Your task to perform on an android device: open the mobile data screen to see how much data has been used Image 0: 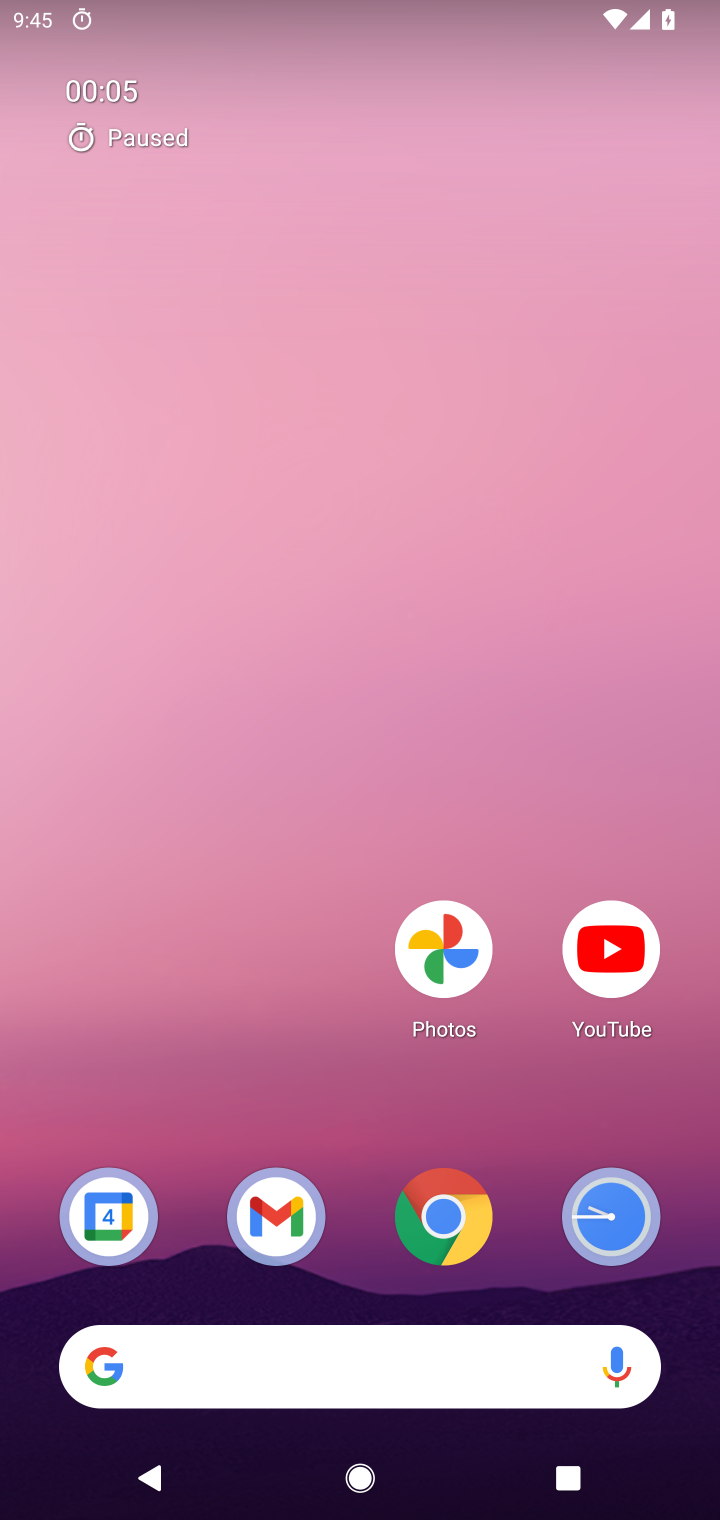
Step 0: drag from (351, 1110) to (295, 111)
Your task to perform on an android device: open the mobile data screen to see how much data has been used Image 1: 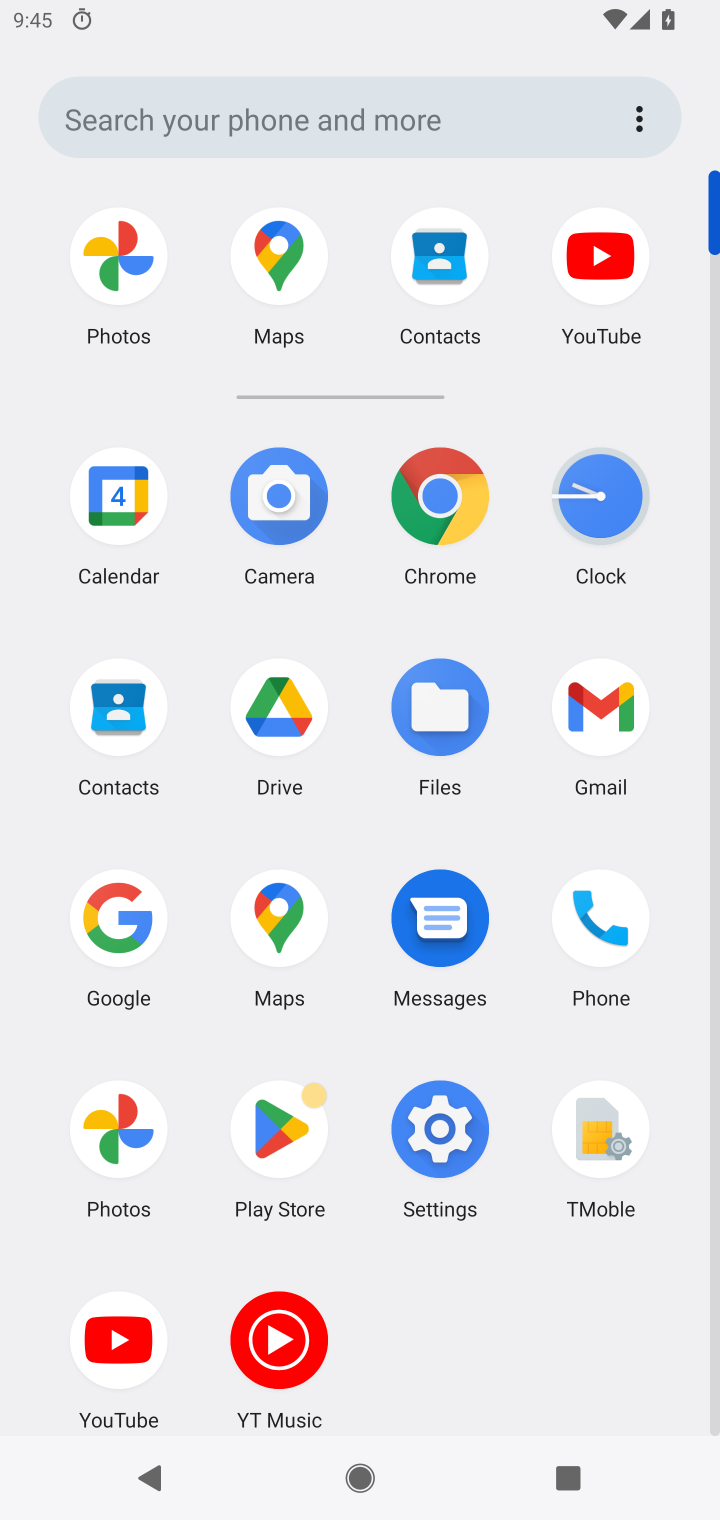
Step 1: click (440, 1129)
Your task to perform on an android device: open the mobile data screen to see how much data has been used Image 2: 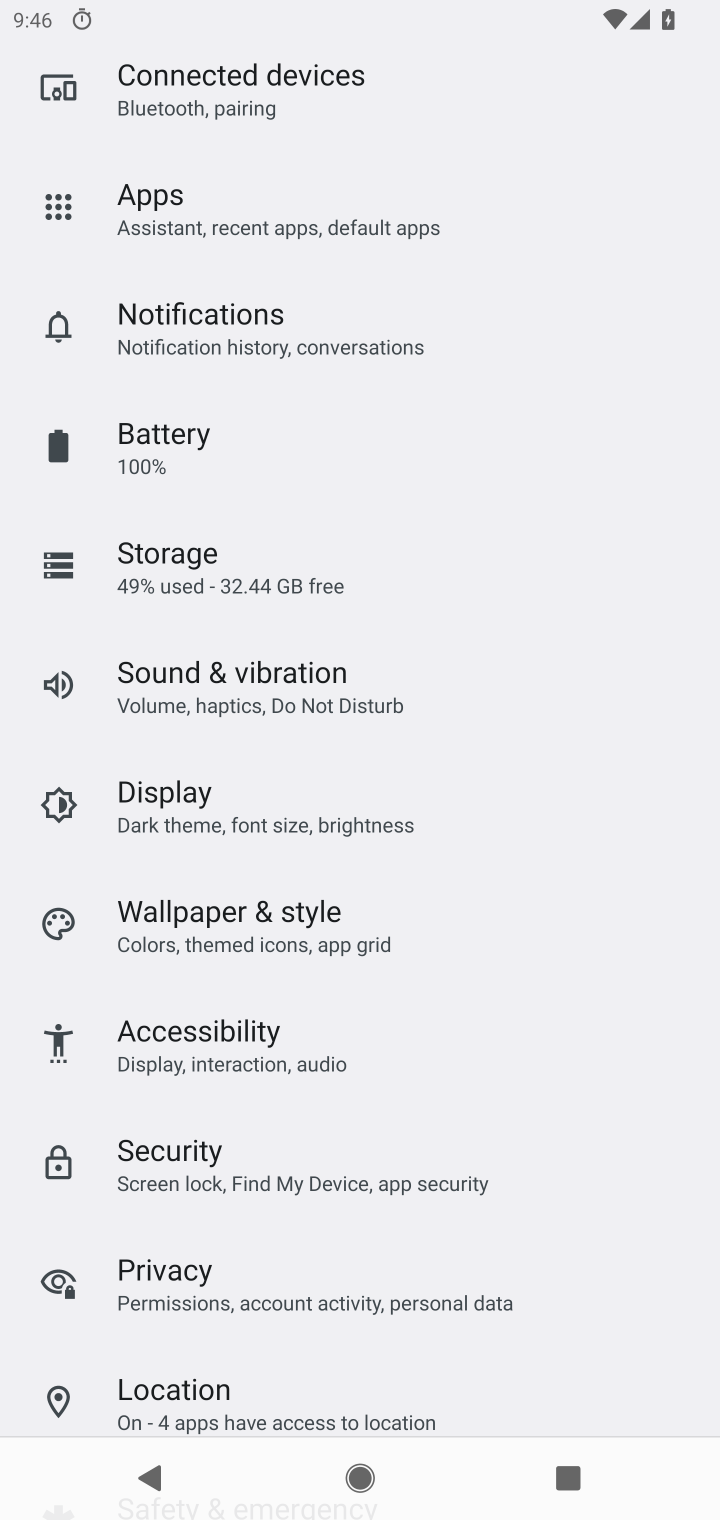
Step 2: drag from (233, 527) to (234, 941)
Your task to perform on an android device: open the mobile data screen to see how much data has been used Image 3: 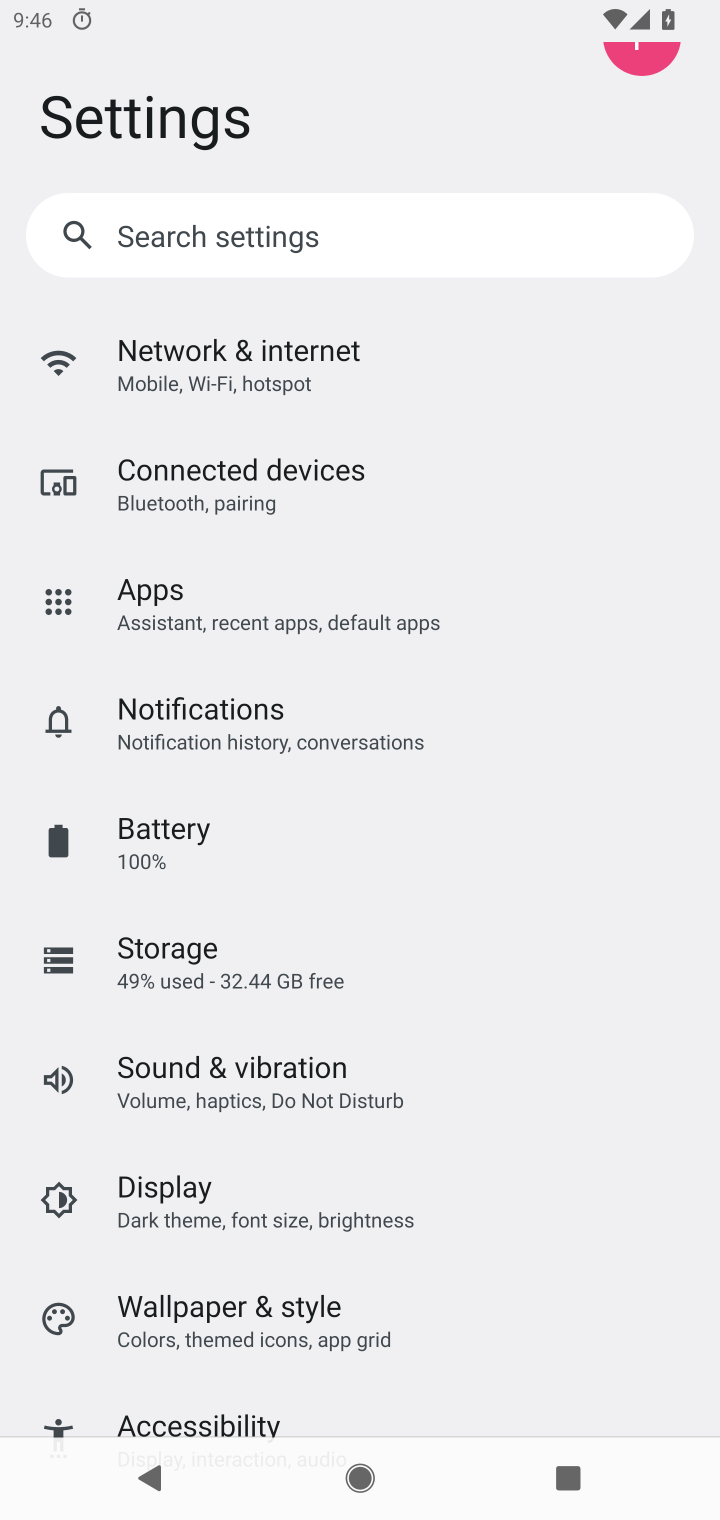
Step 3: click (193, 374)
Your task to perform on an android device: open the mobile data screen to see how much data has been used Image 4: 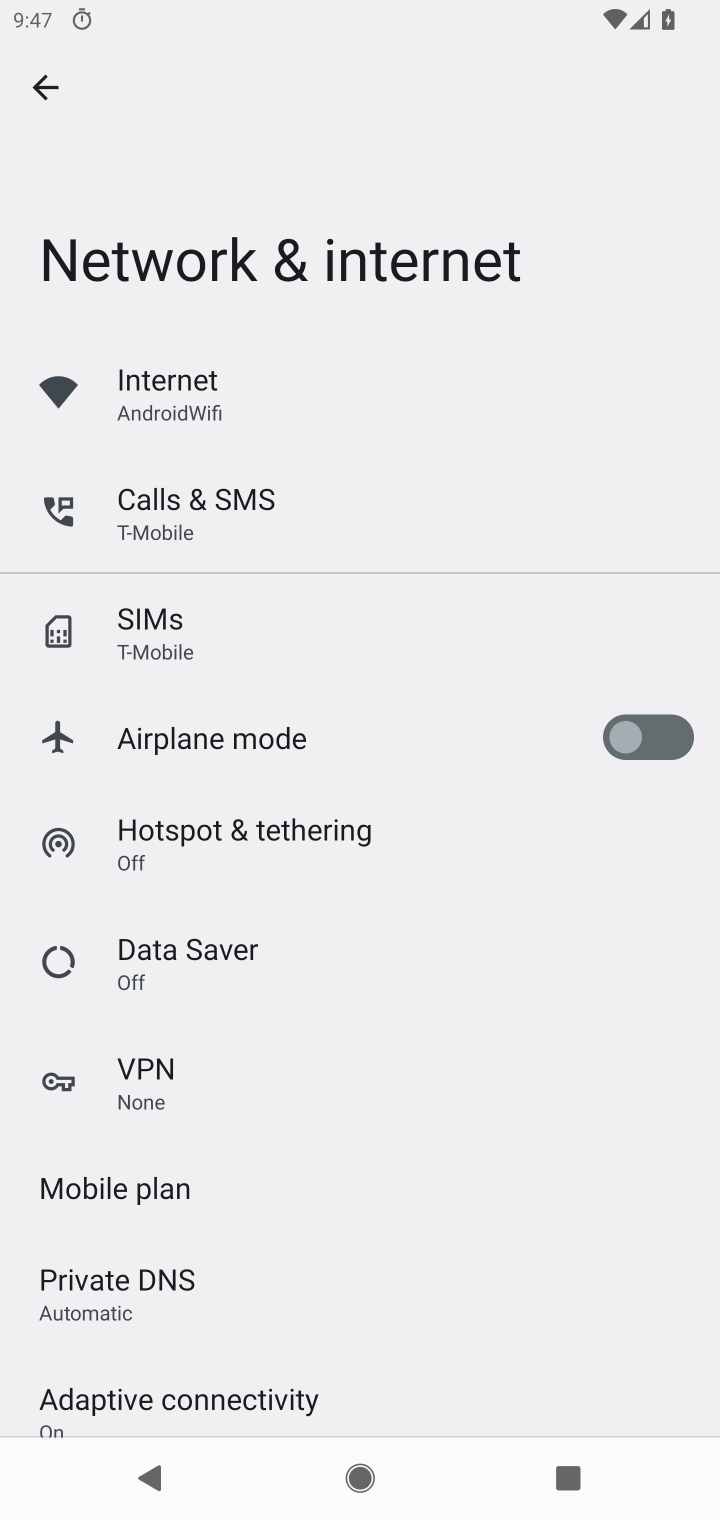
Step 4: drag from (246, 1088) to (235, 861)
Your task to perform on an android device: open the mobile data screen to see how much data has been used Image 5: 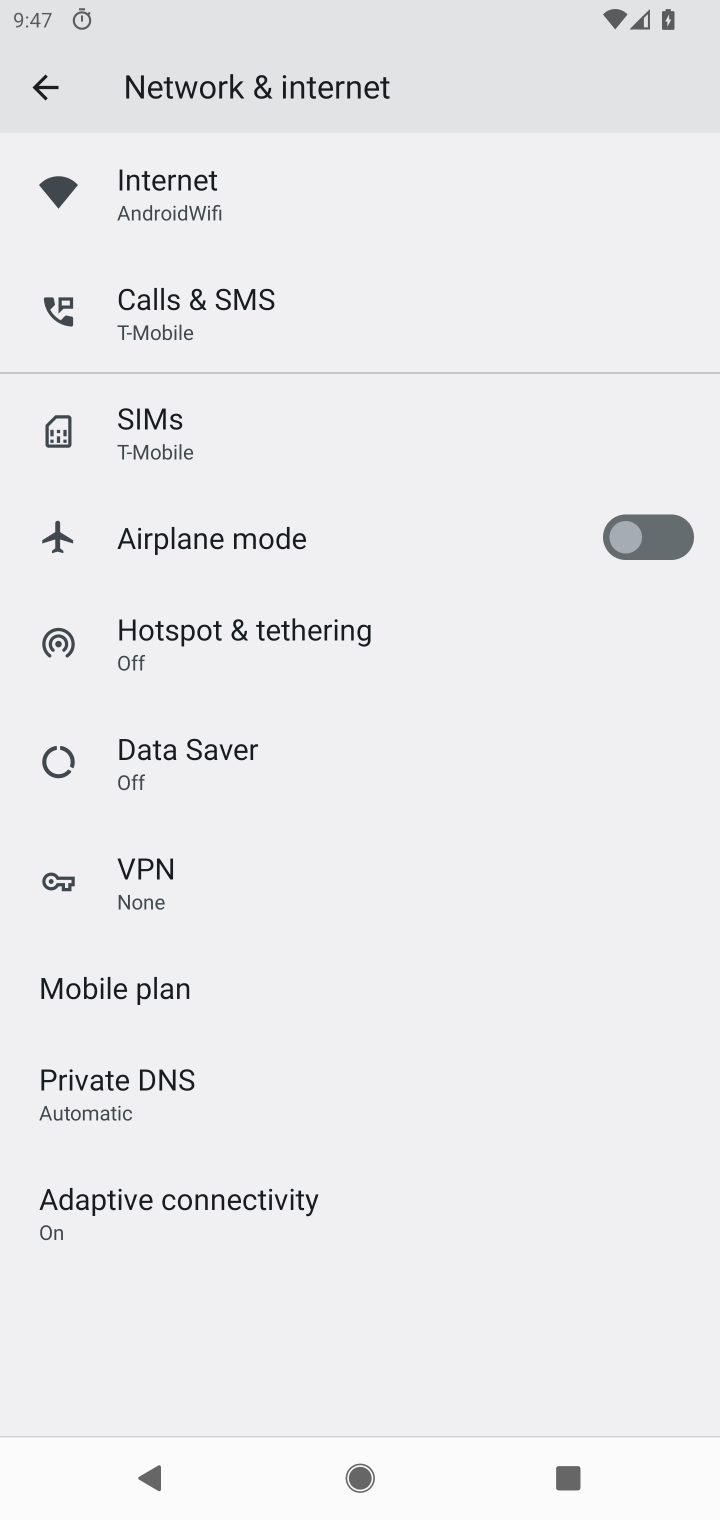
Step 5: click (167, 218)
Your task to perform on an android device: open the mobile data screen to see how much data has been used Image 6: 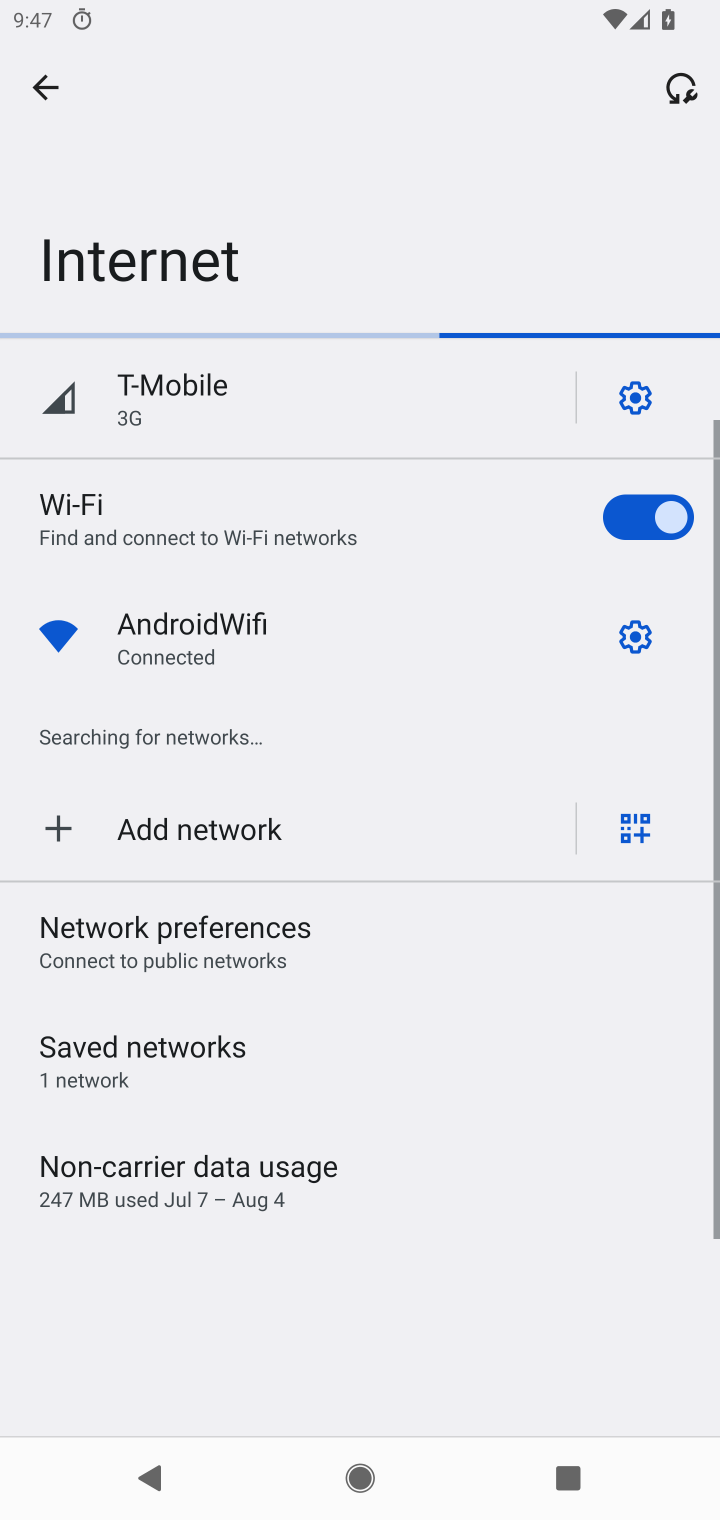
Step 6: click (200, 1177)
Your task to perform on an android device: open the mobile data screen to see how much data has been used Image 7: 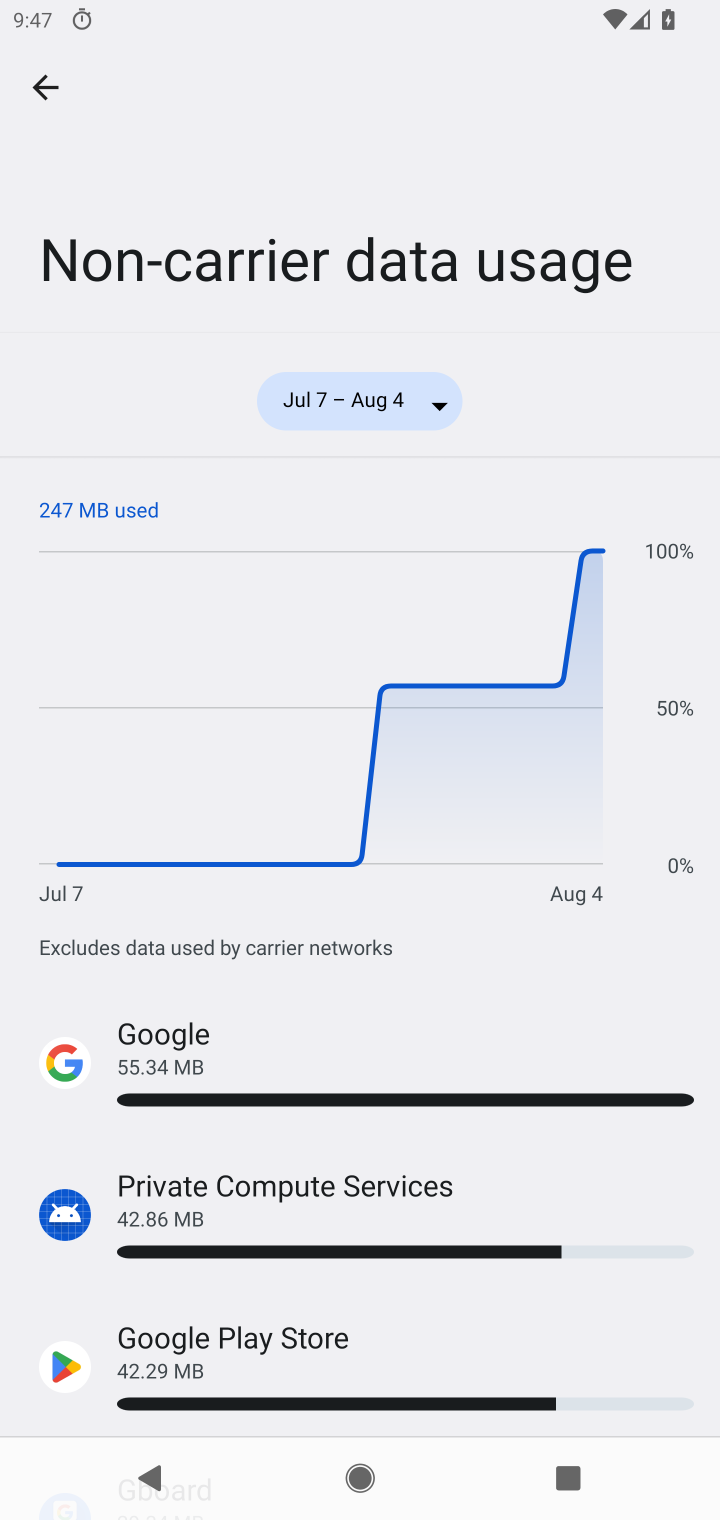
Step 7: task complete